Your task to perform on an android device: star an email in the gmail app Image 0: 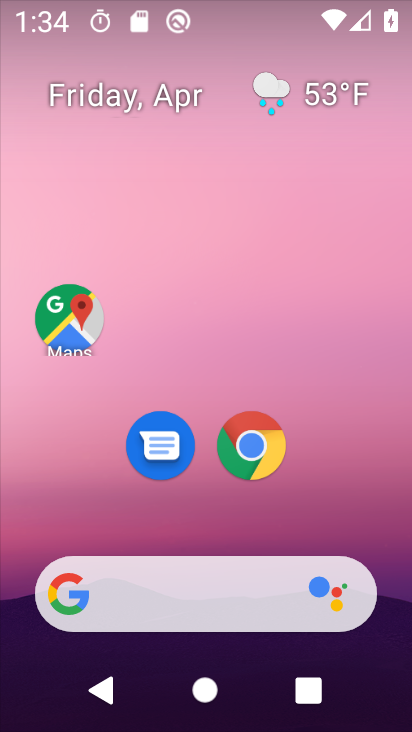
Step 0: drag from (347, 508) to (346, 131)
Your task to perform on an android device: star an email in the gmail app Image 1: 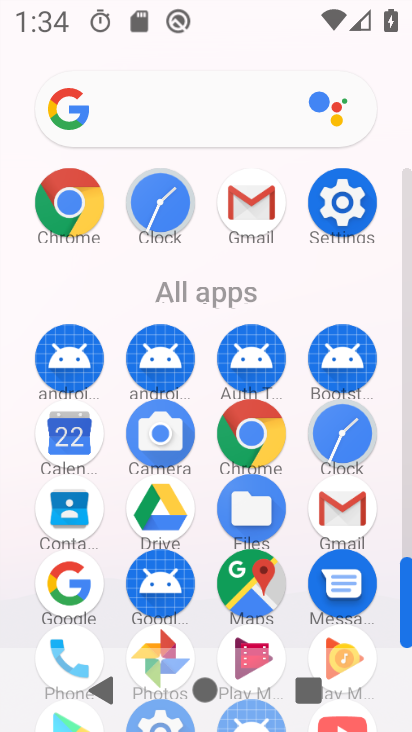
Step 1: click (353, 504)
Your task to perform on an android device: star an email in the gmail app Image 2: 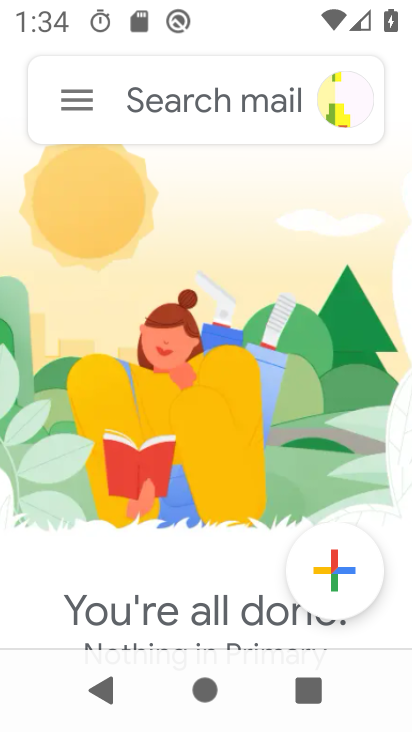
Step 2: click (73, 96)
Your task to perform on an android device: star an email in the gmail app Image 3: 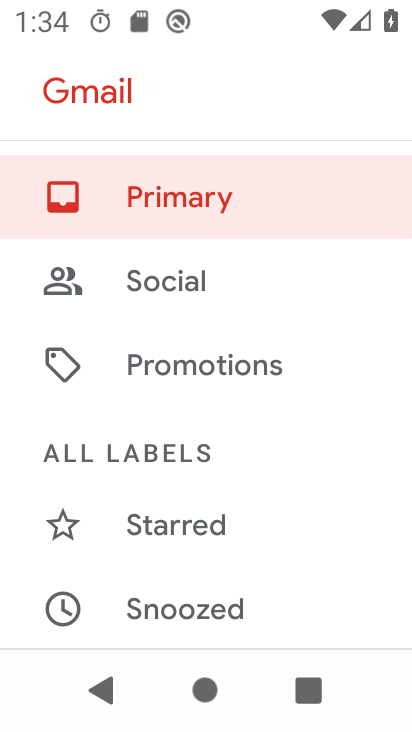
Step 3: task complete